Your task to perform on an android device: all mails in gmail Image 0: 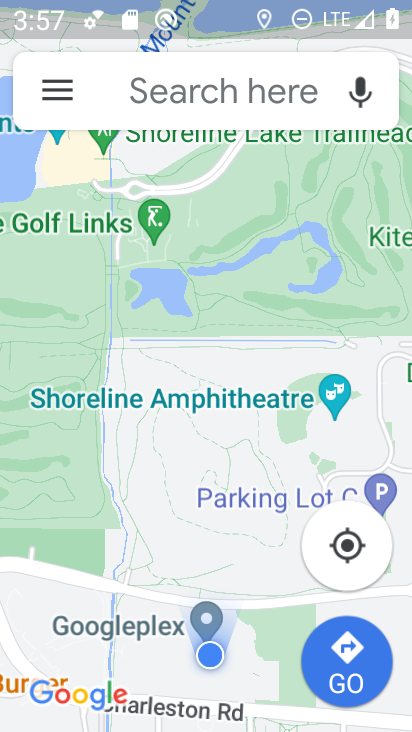
Step 0: press home button
Your task to perform on an android device: all mails in gmail Image 1: 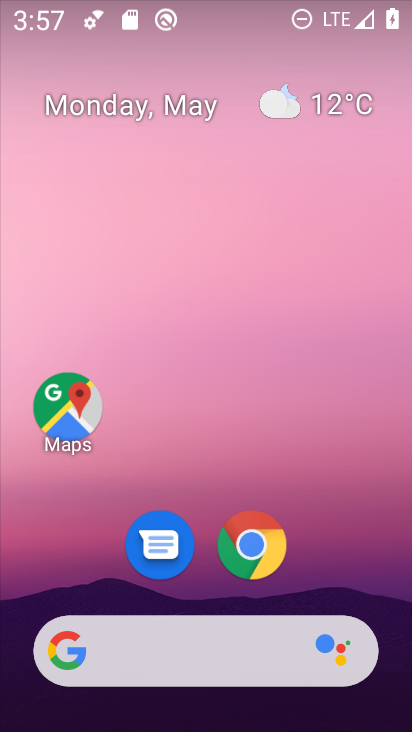
Step 1: drag from (392, 649) to (287, 132)
Your task to perform on an android device: all mails in gmail Image 2: 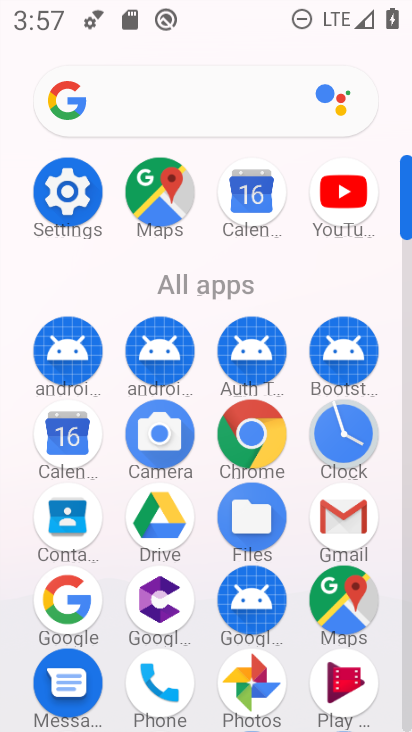
Step 2: click (341, 515)
Your task to perform on an android device: all mails in gmail Image 3: 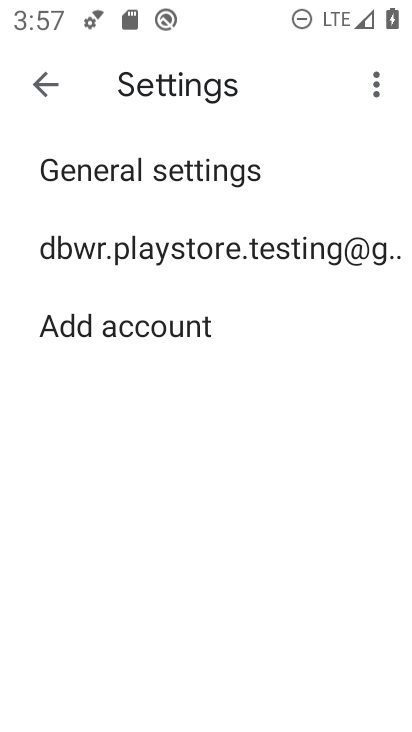
Step 3: press back button
Your task to perform on an android device: all mails in gmail Image 4: 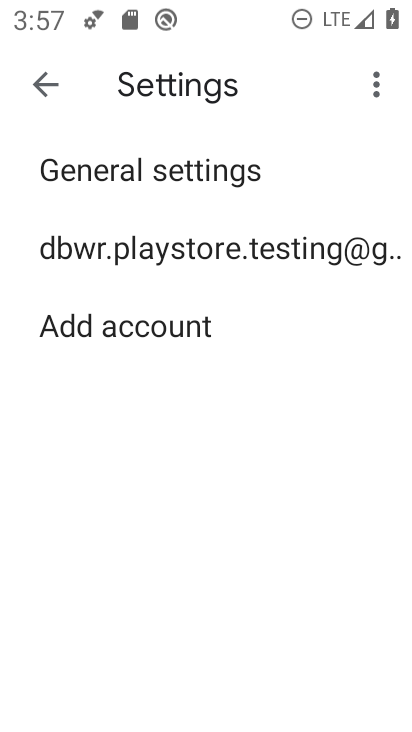
Step 4: press back button
Your task to perform on an android device: all mails in gmail Image 5: 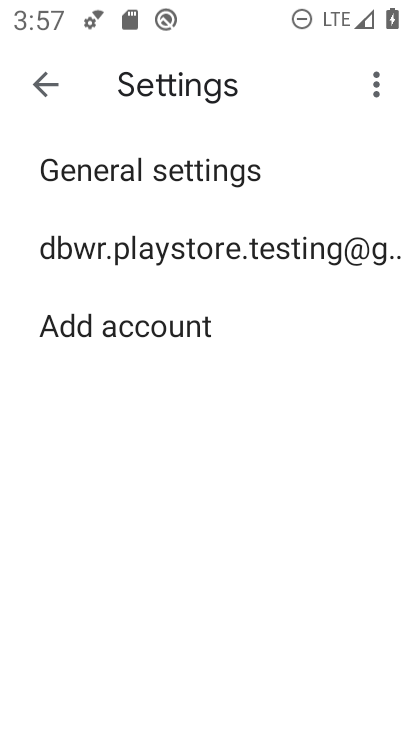
Step 5: press back button
Your task to perform on an android device: all mails in gmail Image 6: 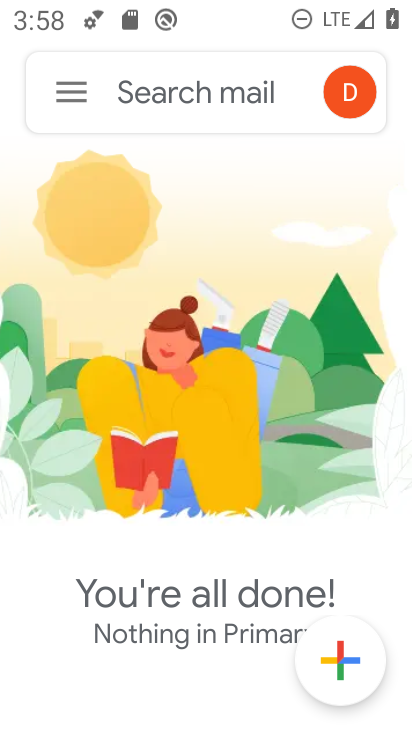
Step 6: click (65, 86)
Your task to perform on an android device: all mails in gmail Image 7: 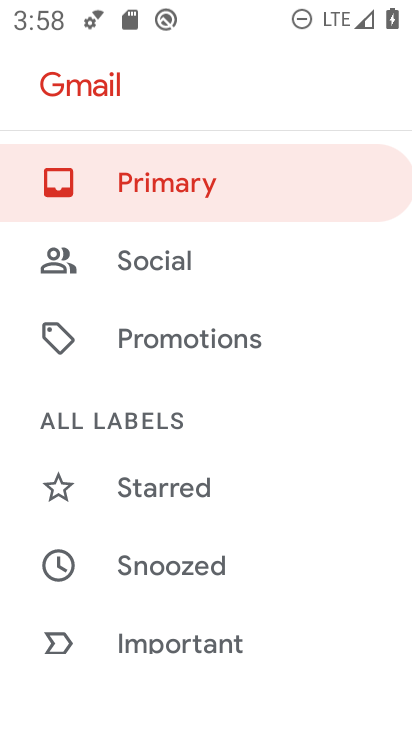
Step 7: drag from (277, 652) to (195, 171)
Your task to perform on an android device: all mails in gmail Image 8: 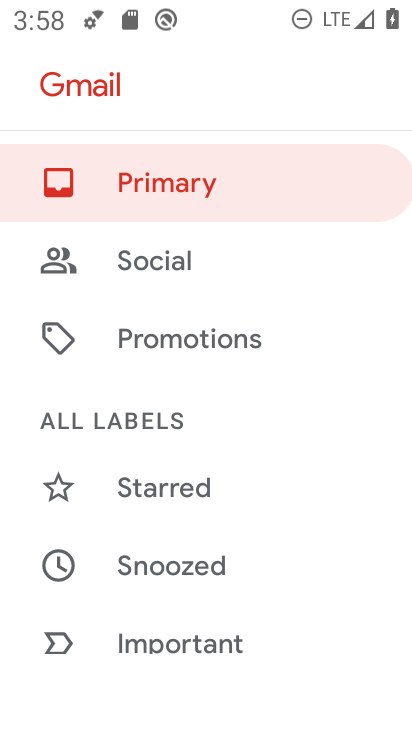
Step 8: drag from (281, 654) to (247, 190)
Your task to perform on an android device: all mails in gmail Image 9: 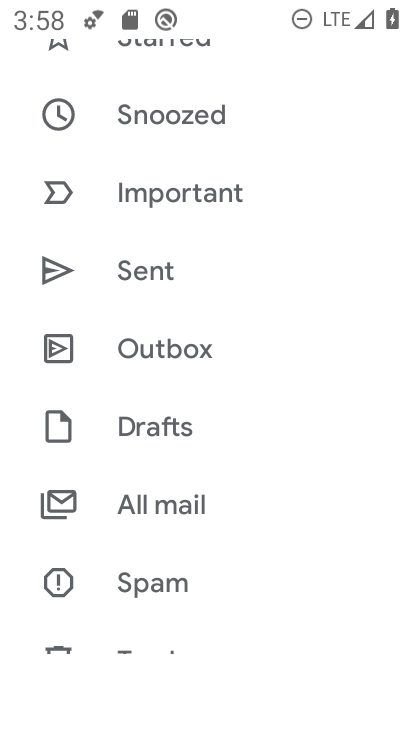
Step 9: click (163, 509)
Your task to perform on an android device: all mails in gmail Image 10: 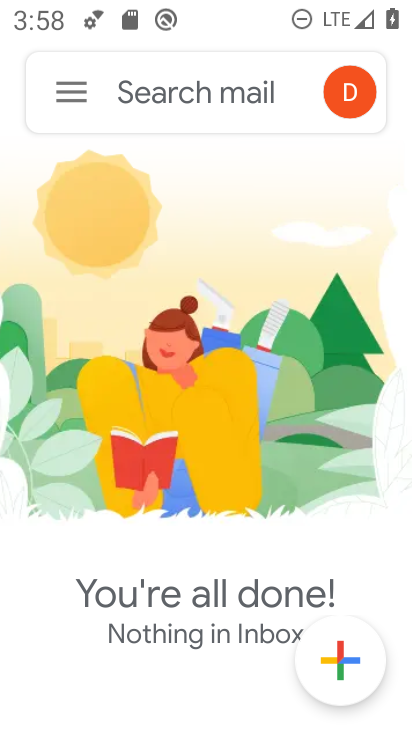
Step 10: task complete